Your task to perform on an android device: open app "YouTube Kids" Image 0: 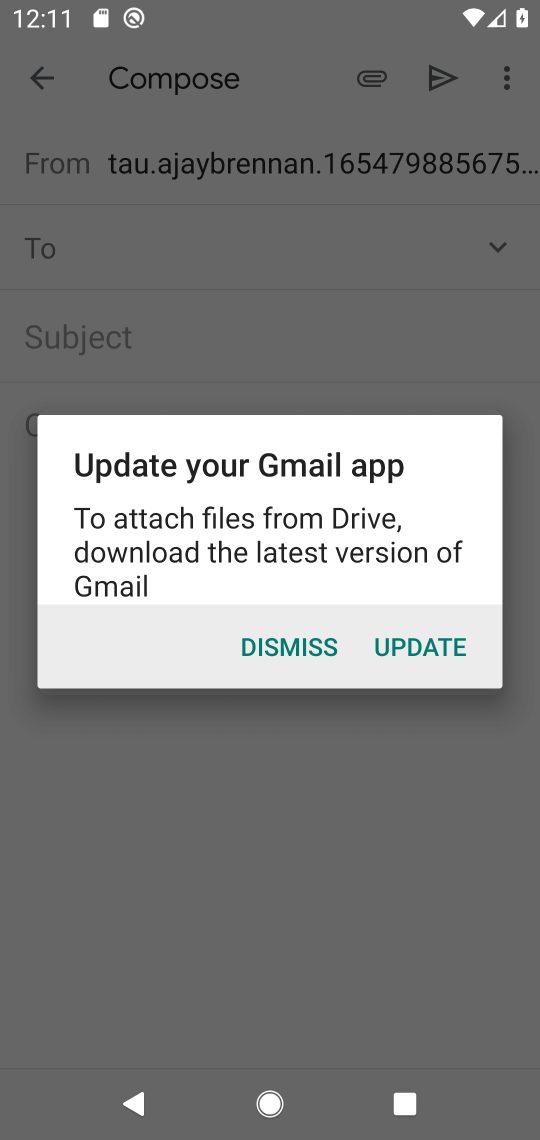
Step 0: click (302, 650)
Your task to perform on an android device: open app "YouTube Kids" Image 1: 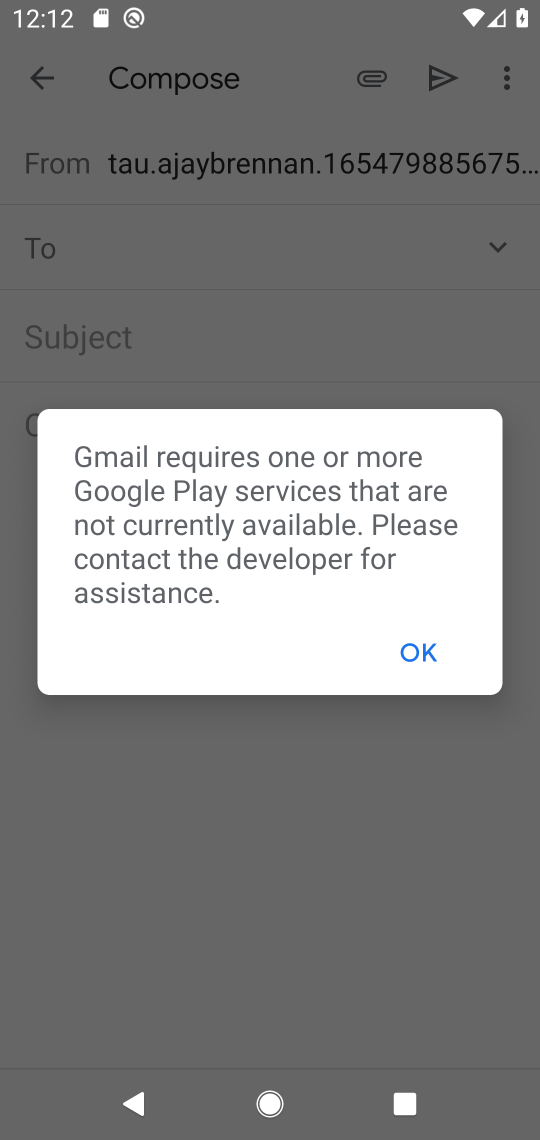
Step 1: click (418, 647)
Your task to perform on an android device: open app "YouTube Kids" Image 2: 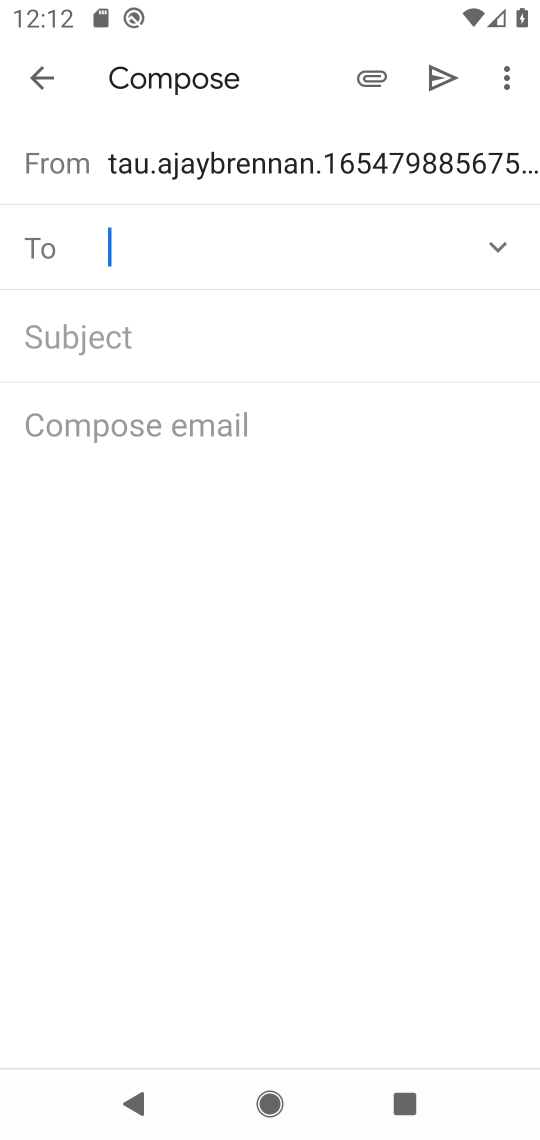
Step 2: press home button
Your task to perform on an android device: open app "YouTube Kids" Image 3: 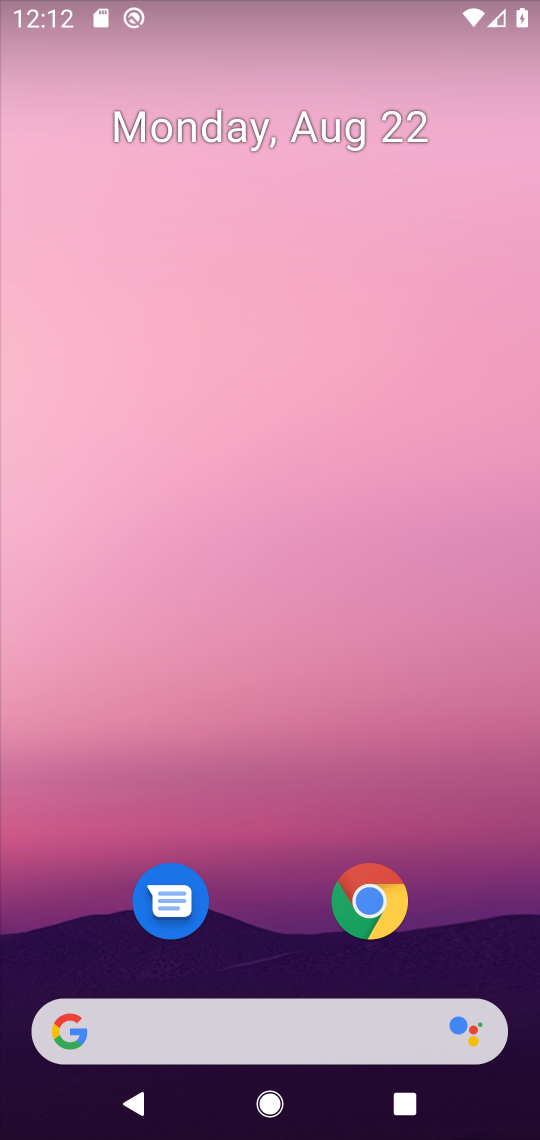
Step 3: drag from (272, 961) to (497, 195)
Your task to perform on an android device: open app "YouTube Kids" Image 4: 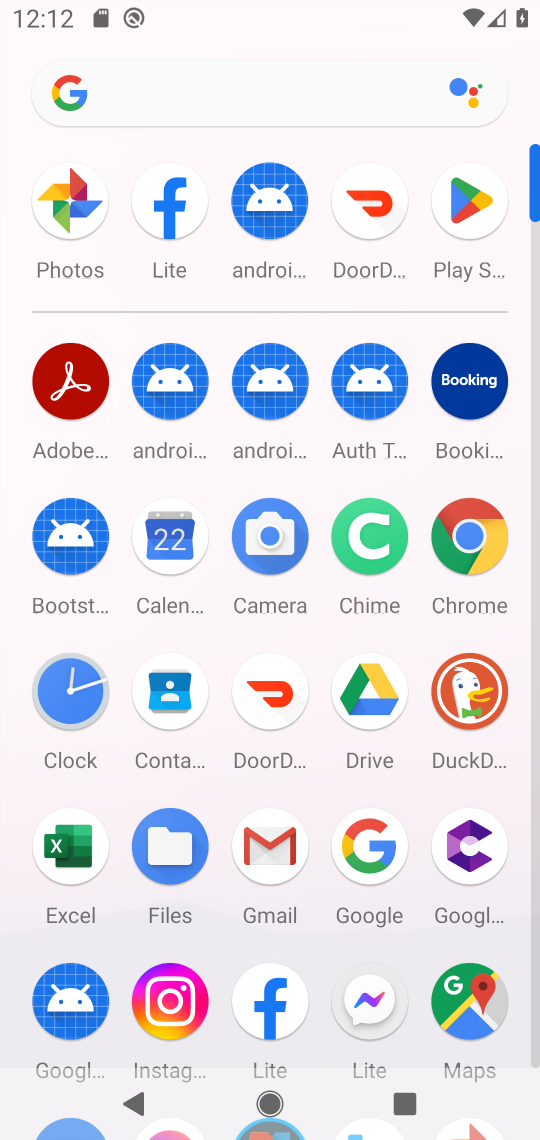
Step 4: click (432, 230)
Your task to perform on an android device: open app "YouTube Kids" Image 5: 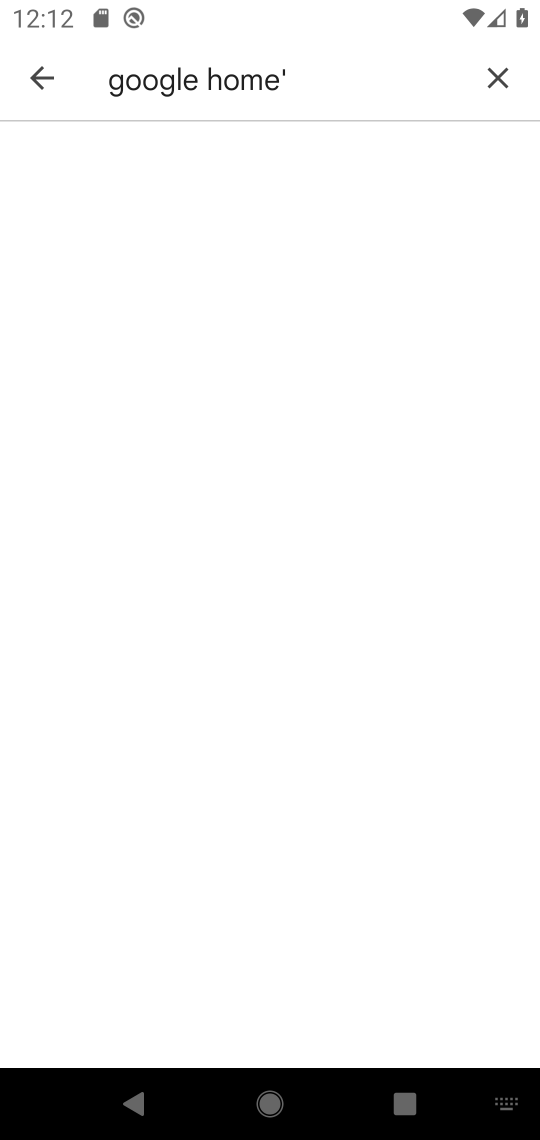
Step 5: click (497, 92)
Your task to perform on an android device: open app "YouTube Kids" Image 6: 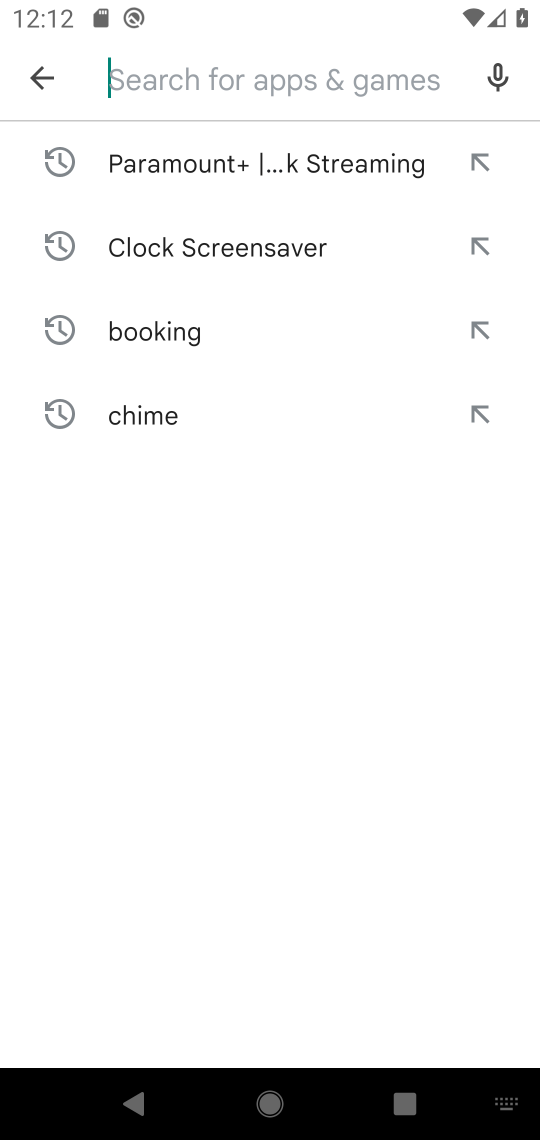
Step 6: type "youtube"
Your task to perform on an android device: open app "YouTube Kids" Image 7: 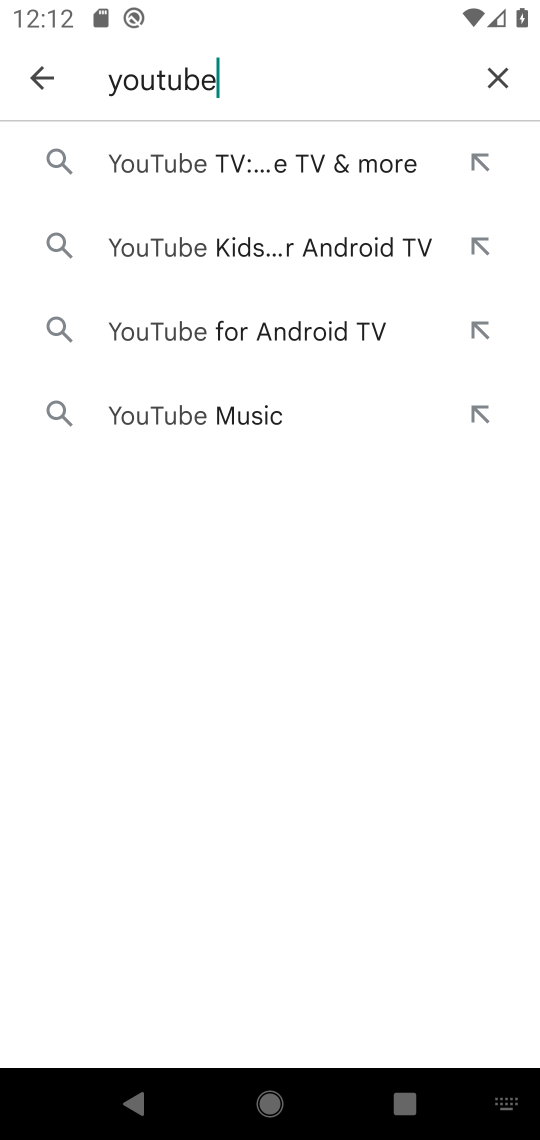
Step 7: click (151, 129)
Your task to perform on an android device: open app "YouTube Kids" Image 8: 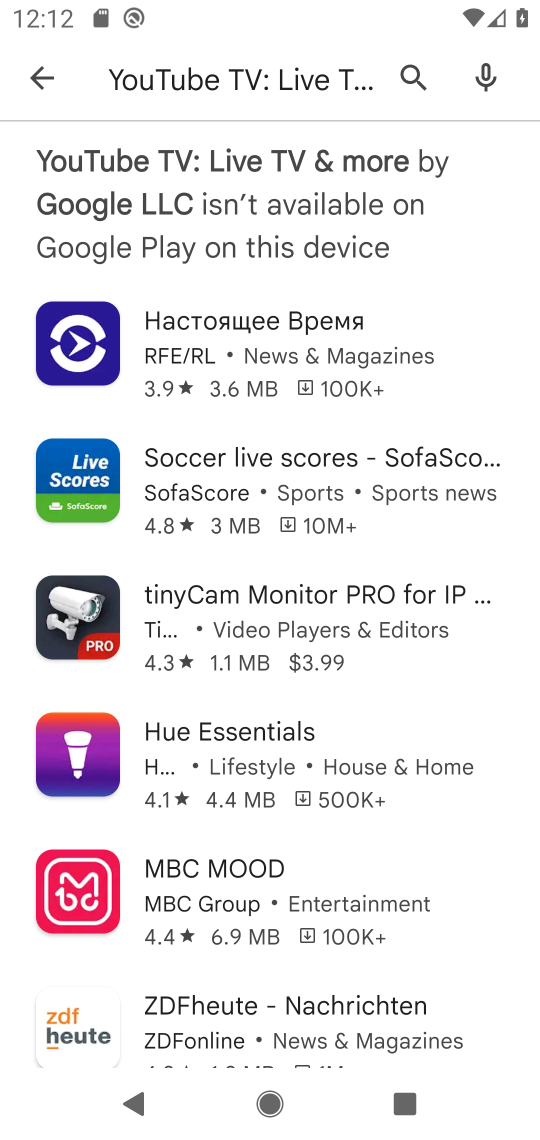
Step 8: task complete